Your task to perform on an android device: Clear all items from cart on target. Search for dell xps on target, select the first entry, add it to the cart, then select checkout. Image 0: 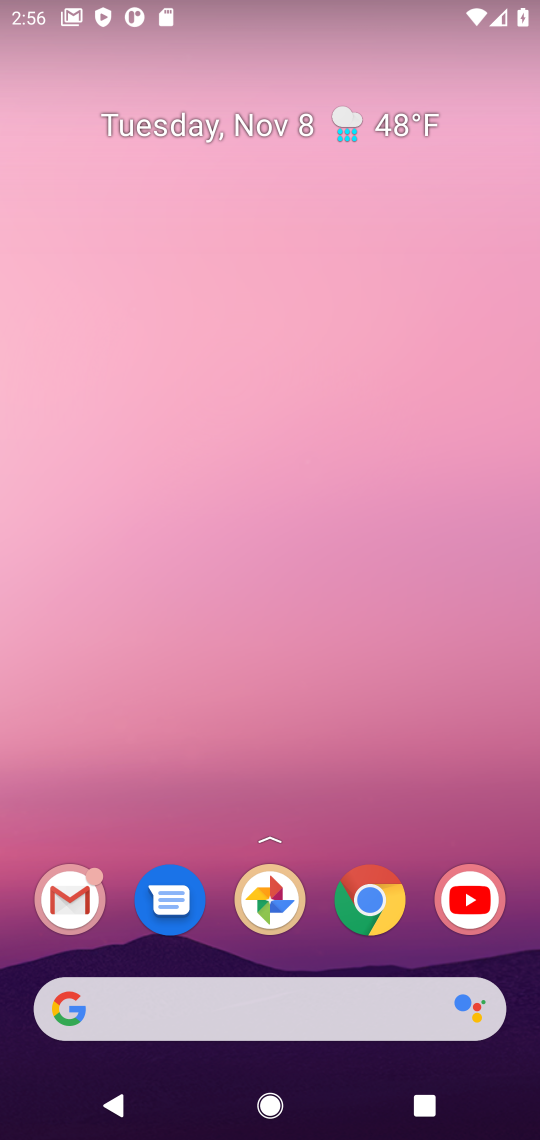
Step 0: click (378, 898)
Your task to perform on an android device: Clear all items from cart on target. Search for dell xps on target, select the first entry, add it to the cart, then select checkout. Image 1: 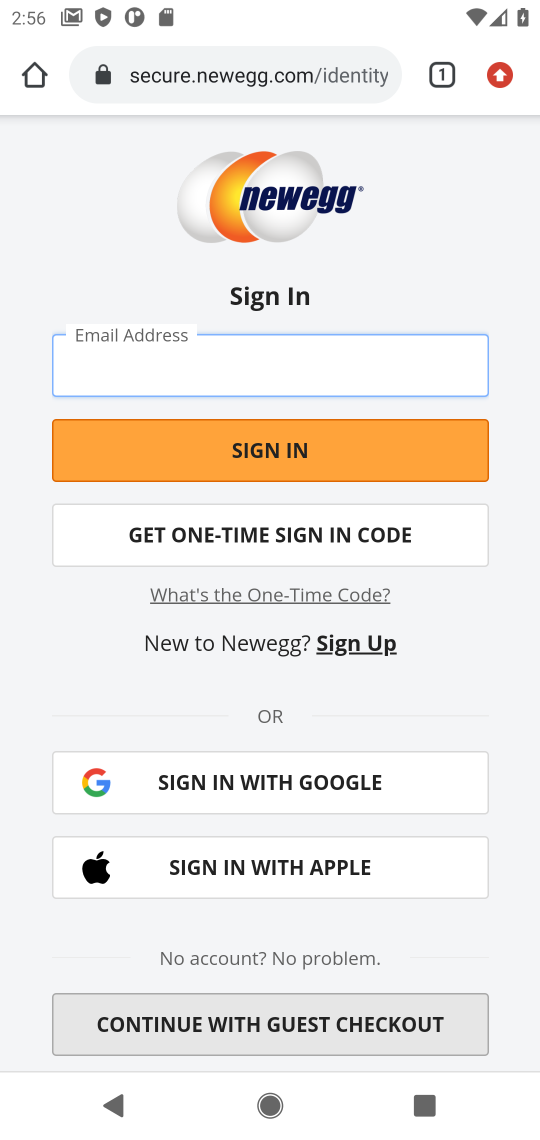
Step 1: click (33, 74)
Your task to perform on an android device: Clear all items from cart on target. Search for dell xps on target, select the first entry, add it to the cart, then select checkout. Image 2: 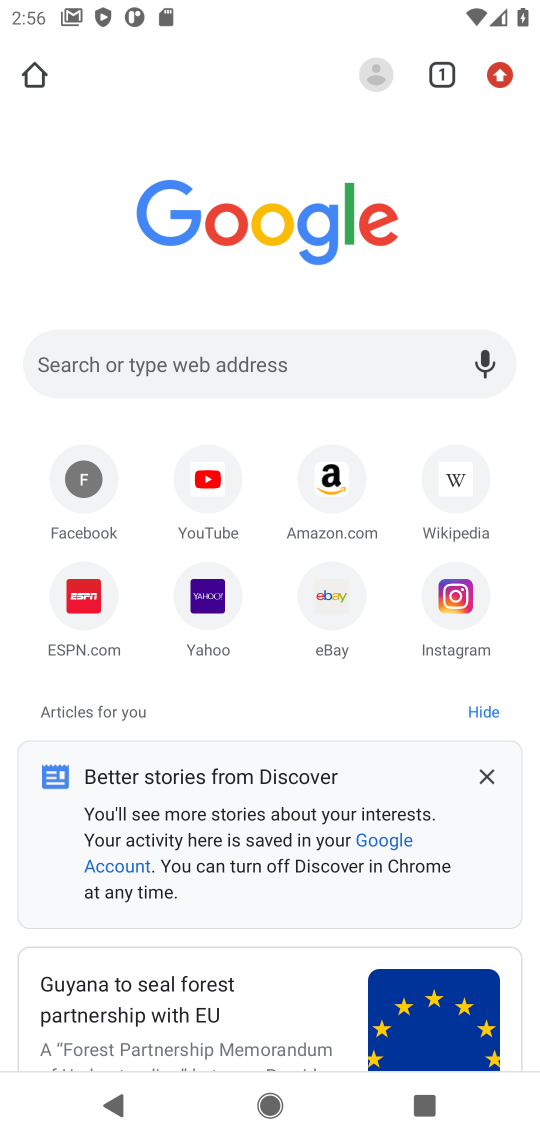
Step 2: click (361, 359)
Your task to perform on an android device: Clear all items from cart on target. Search for dell xps on target, select the first entry, add it to the cart, then select checkout. Image 3: 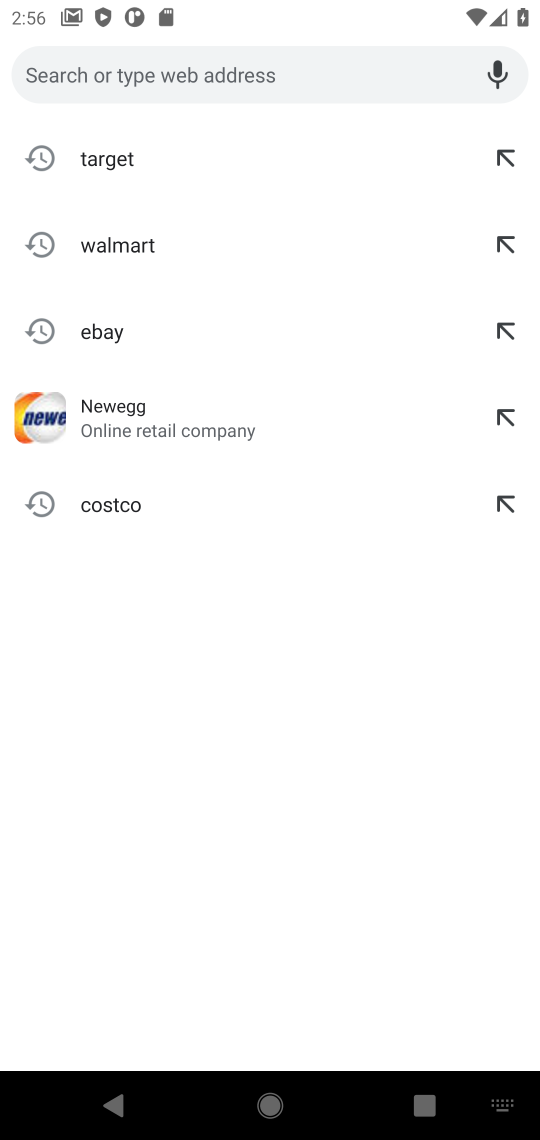
Step 3: click (112, 160)
Your task to perform on an android device: Clear all items from cart on target. Search for dell xps on target, select the first entry, add it to the cart, then select checkout. Image 4: 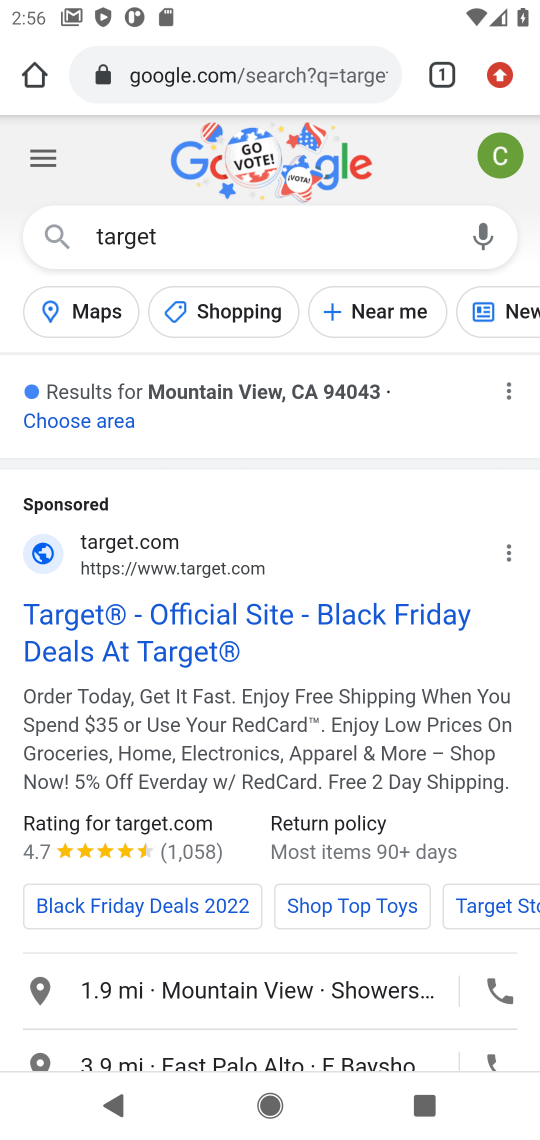
Step 4: click (232, 568)
Your task to perform on an android device: Clear all items from cart on target. Search for dell xps on target, select the first entry, add it to the cart, then select checkout. Image 5: 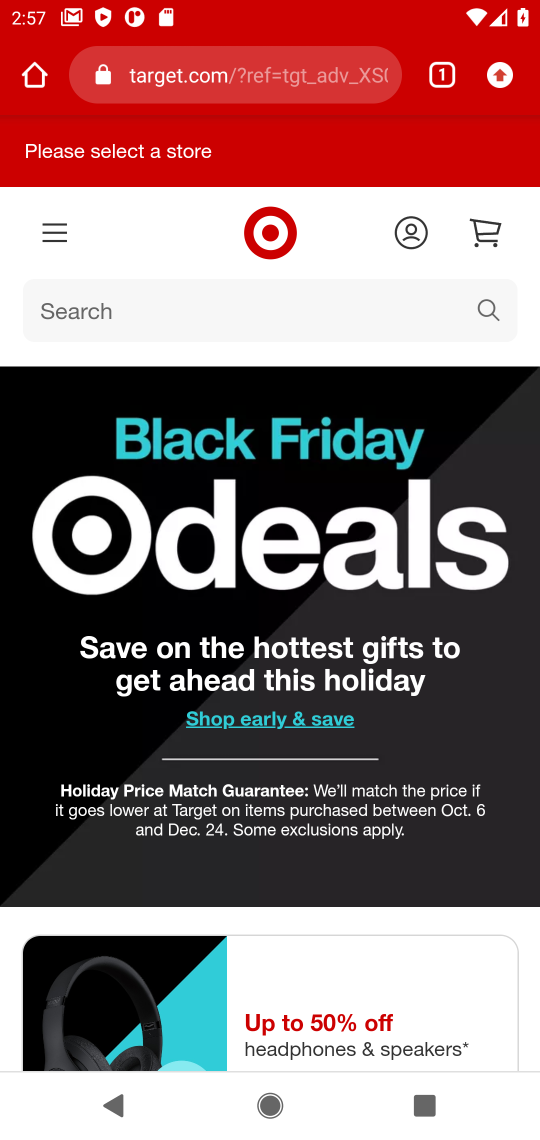
Step 5: click (489, 237)
Your task to perform on an android device: Clear all items from cart on target. Search for dell xps on target, select the first entry, add it to the cart, then select checkout. Image 6: 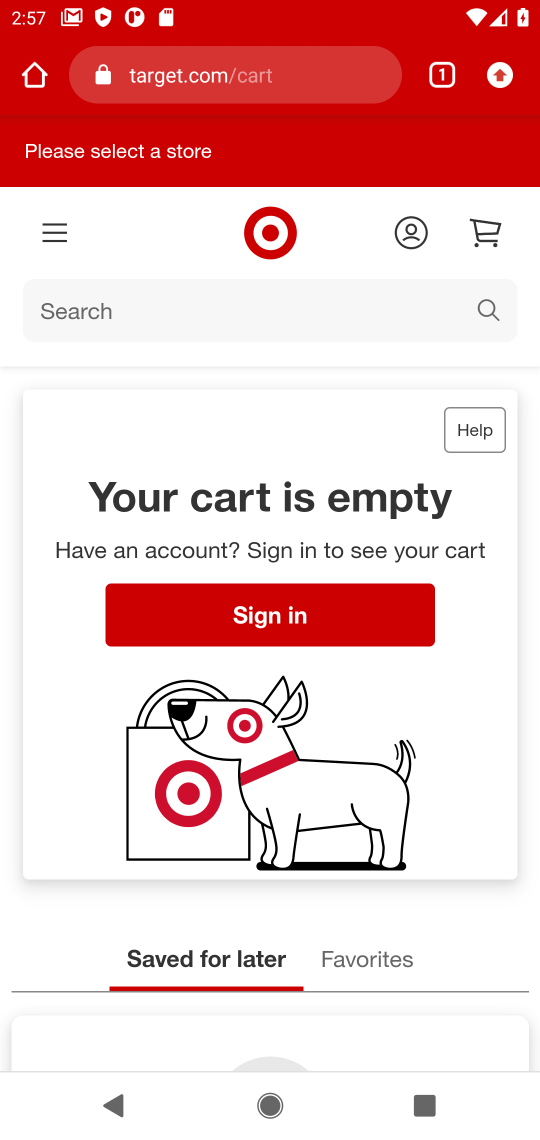
Step 6: click (492, 308)
Your task to perform on an android device: Clear all items from cart on target. Search for dell xps on target, select the first entry, add it to the cart, then select checkout. Image 7: 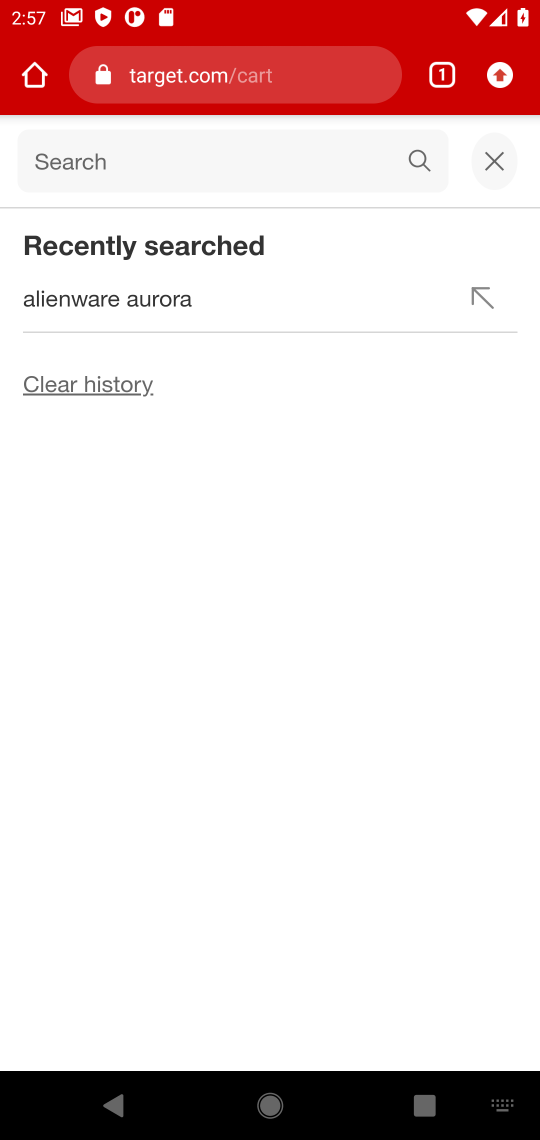
Step 7: type "dell xps"
Your task to perform on an android device: Clear all items from cart on target. Search for dell xps on target, select the first entry, add it to the cart, then select checkout. Image 8: 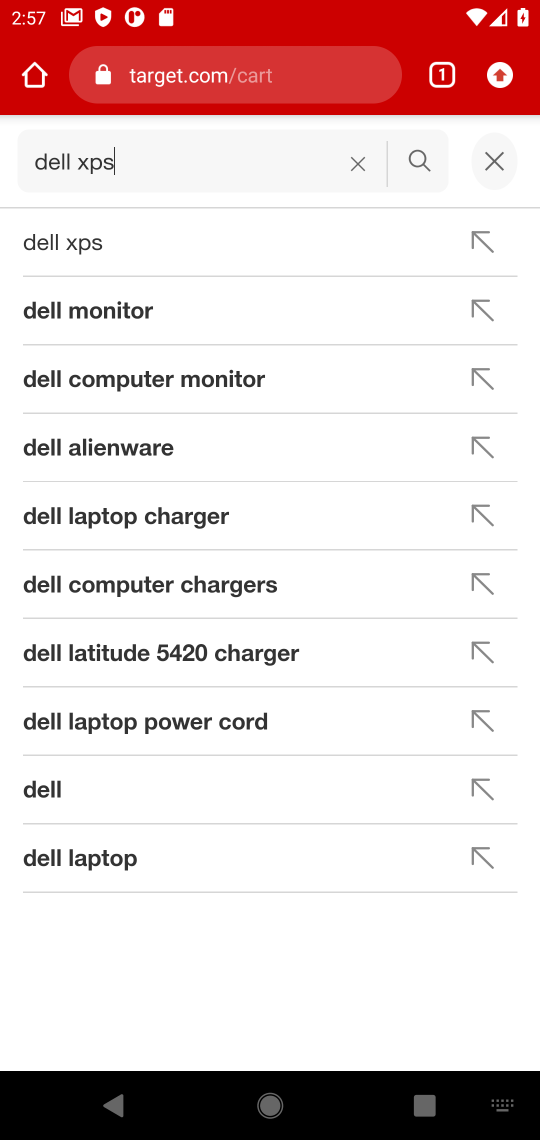
Step 8: press enter
Your task to perform on an android device: Clear all items from cart on target. Search for dell xps on target, select the first entry, add it to the cart, then select checkout. Image 9: 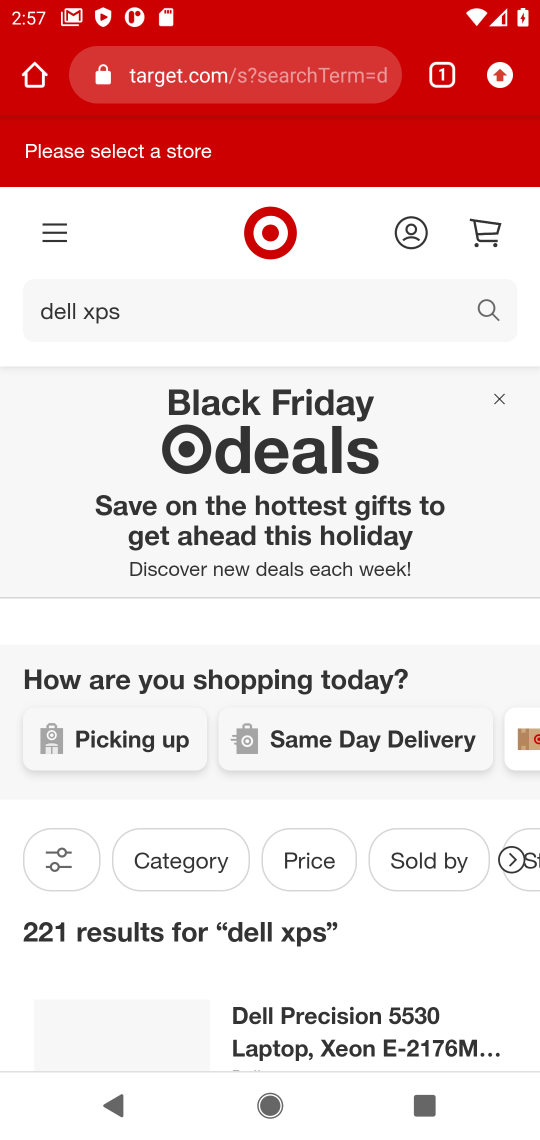
Step 9: task complete